Your task to perform on an android device: Play the last video I watched on Youtube Image 0: 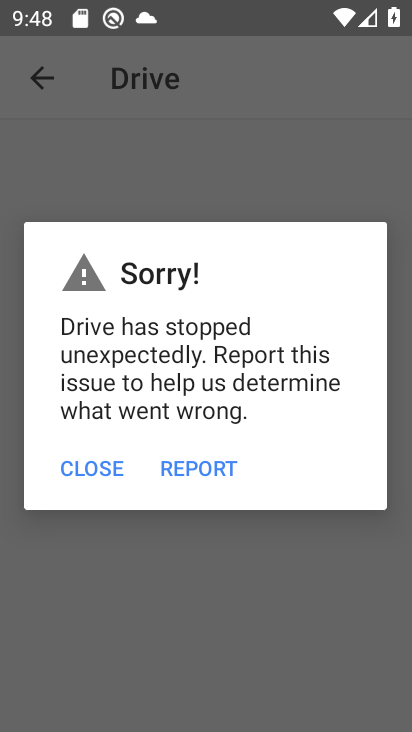
Step 0: press home button
Your task to perform on an android device: Play the last video I watched on Youtube Image 1: 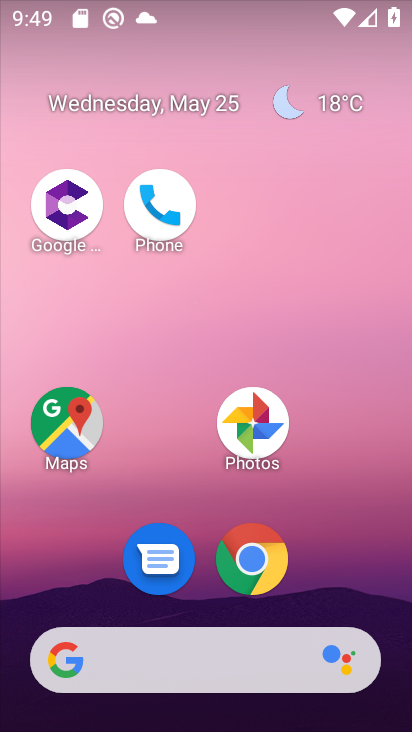
Step 1: drag from (332, 586) to (294, 56)
Your task to perform on an android device: Play the last video I watched on Youtube Image 2: 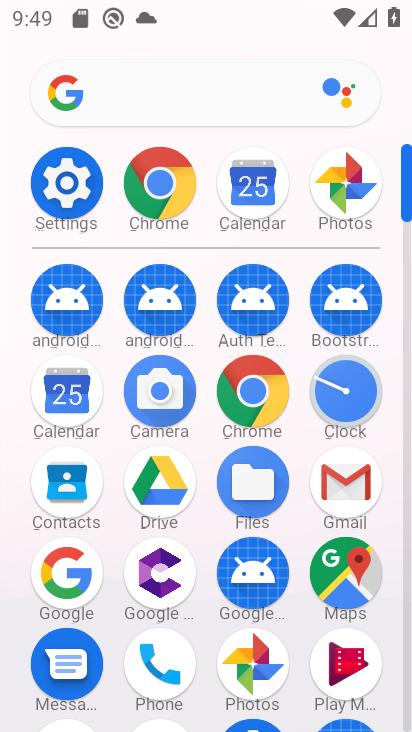
Step 2: drag from (301, 619) to (234, 3)
Your task to perform on an android device: Play the last video I watched on Youtube Image 3: 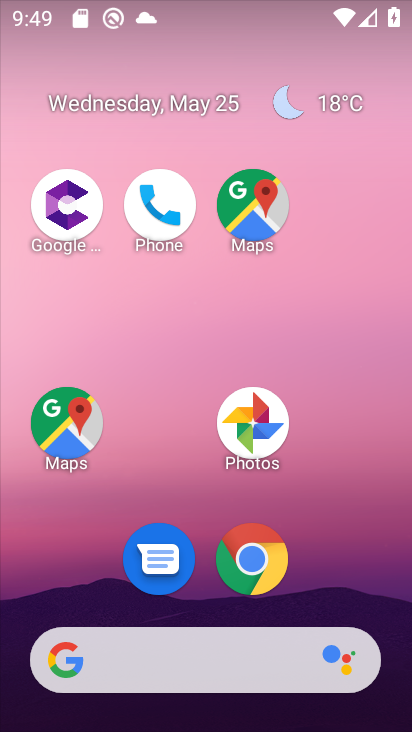
Step 3: drag from (361, 529) to (243, 2)
Your task to perform on an android device: Play the last video I watched on Youtube Image 4: 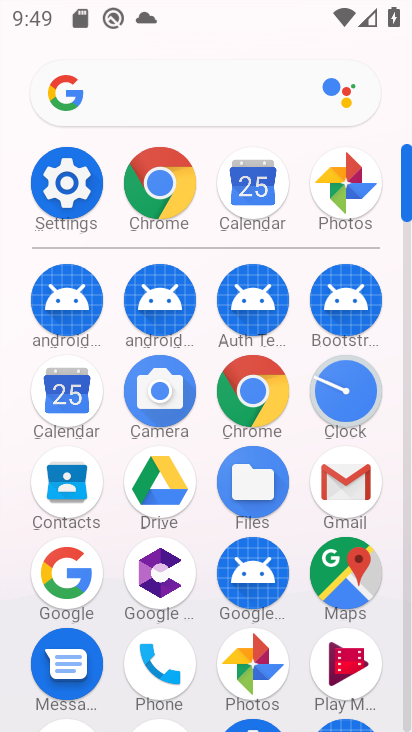
Step 4: drag from (201, 618) to (238, 35)
Your task to perform on an android device: Play the last video I watched on Youtube Image 5: 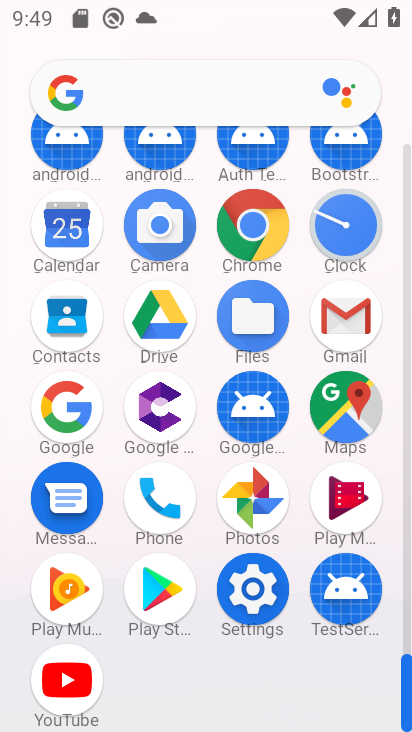
Step 5: click (77, 669)
Your task to perform on an android device: Play the last video I watched on Youtube Image 6: 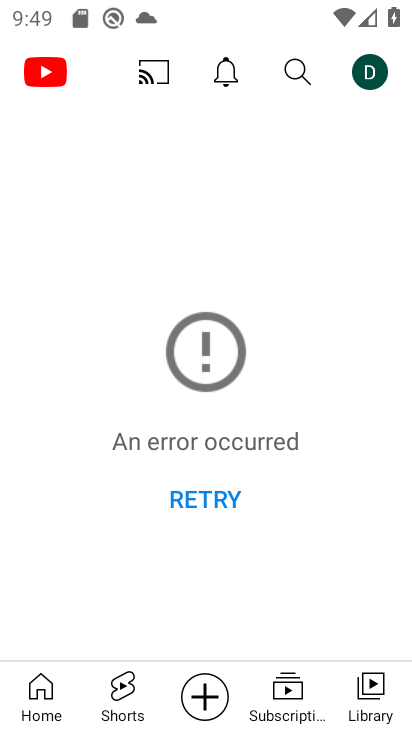
Step 6: click (208, 492)
Your task to perform on an android device: Play the last video I watched on Youtube Image 7: 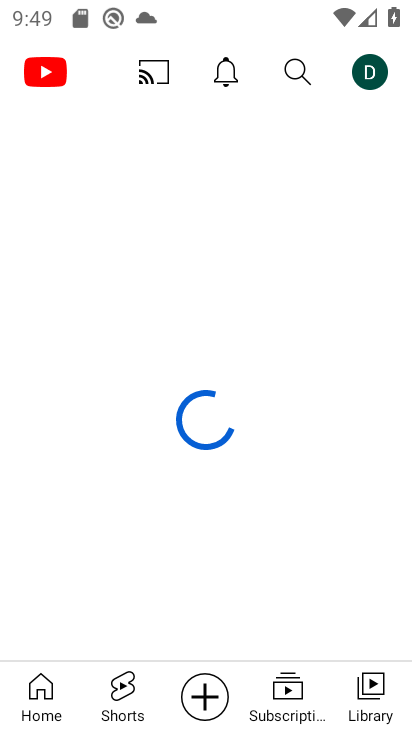
Step 7: click (208, 492)
Your task to perform on an android device: Play the last video I watched on Youtube Image 8: 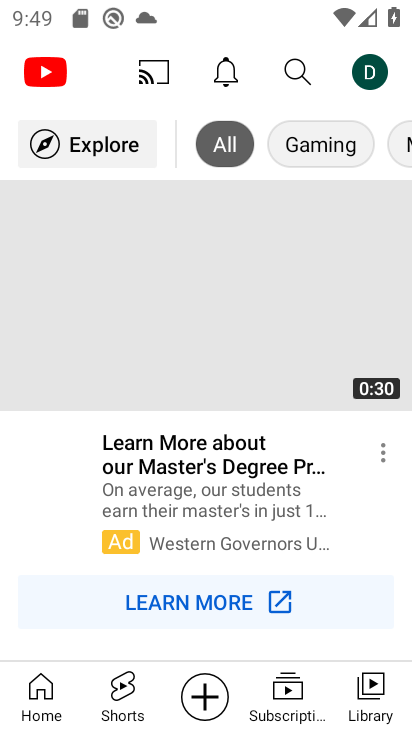
Step 8: click (208, 492)
Your task to perform on an android device: Play the last video I watched on Youtube Image 9: 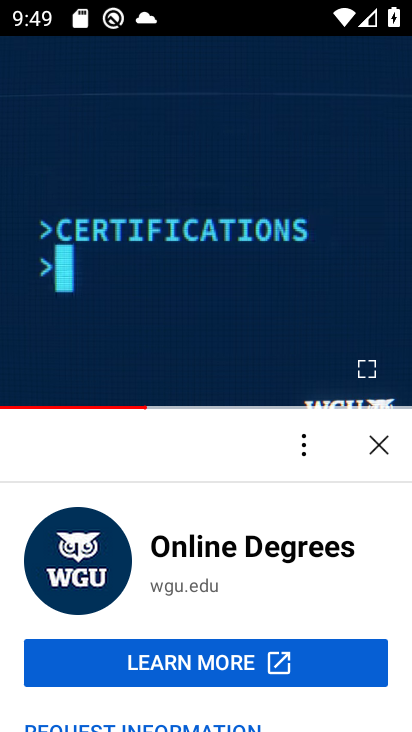
Step 9: press back button
Your task to perform on an android device: Play the last video I watched on Youtube Image 10: 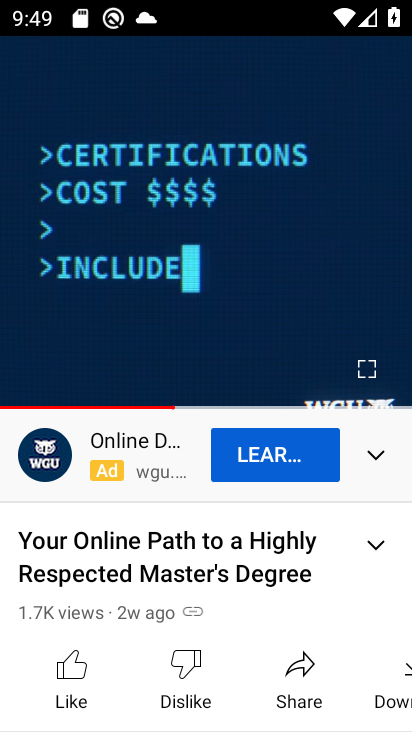
Step 10: press back button
Your task to perform on an android device: Play the last video I watched on Youtube Image 11: 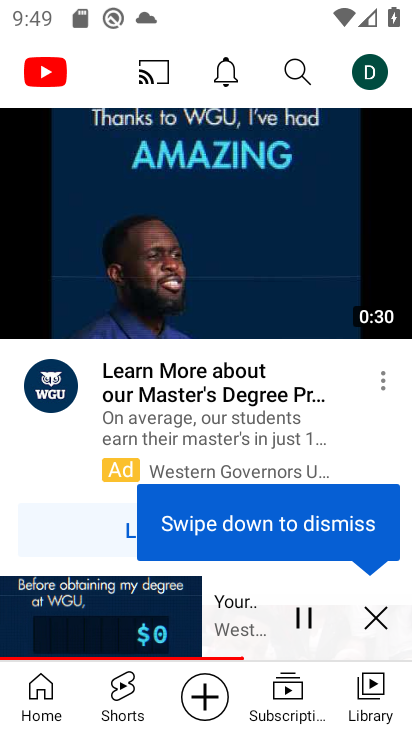
Step 11: click (389, 699)
Your task to perform on an android device: Play the last video I watched on Youtube Image 12: 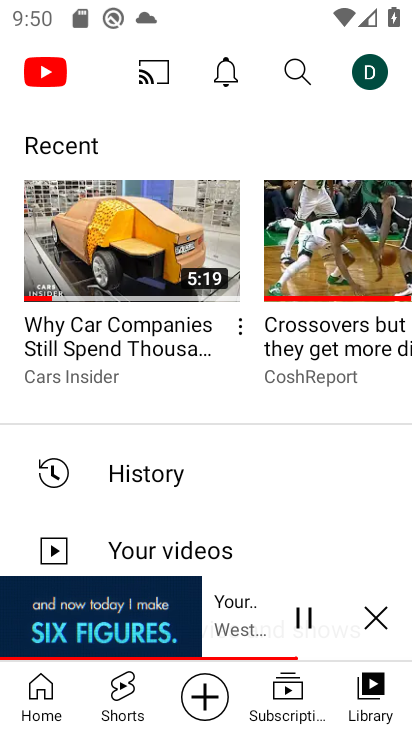
Step 12: click (90, 221)
Your task to perform on an android device: Play the last video I watched on Youtube Image 13: 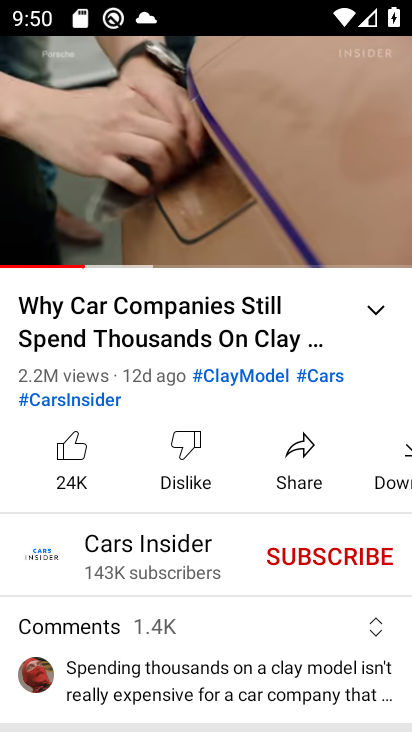
Step 13: task complete